Your task to perform on an android device: Open calendar and show me the third week of next month Image 0: 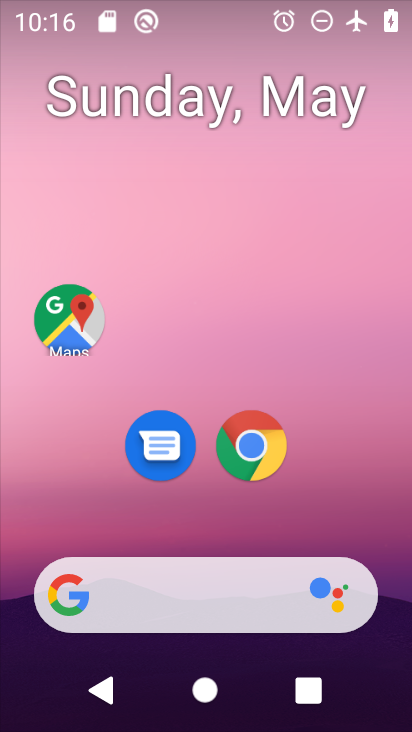
Step 0: drag from (190, 618) to (193, 232)
Your task to perform on an android device: Open calendar and show me the third week of next month Image 1: 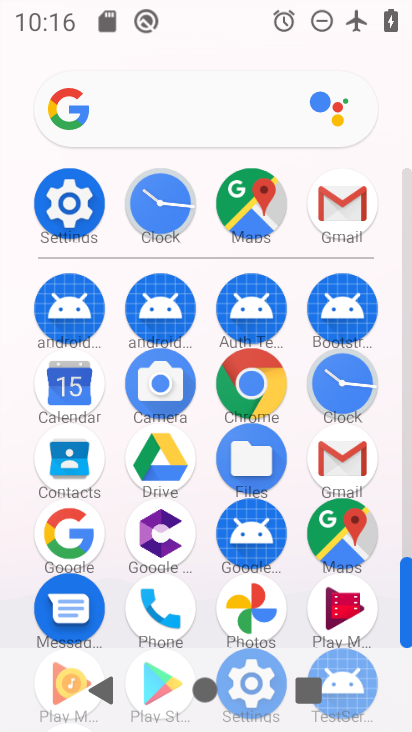
Step 1: click (73, 407)
Your task to perform on an android device: Open calendar and show me the third week of next month Image 2: 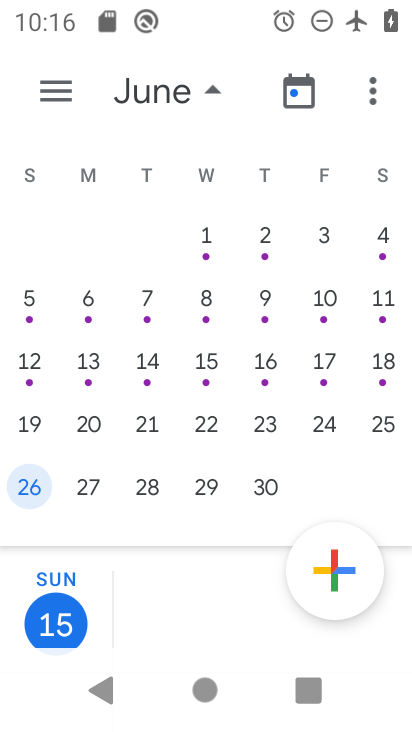
Step 2: click (35, 421)
Your task to perform on an android device: Open calendar and show me the third week of next month Image 3: 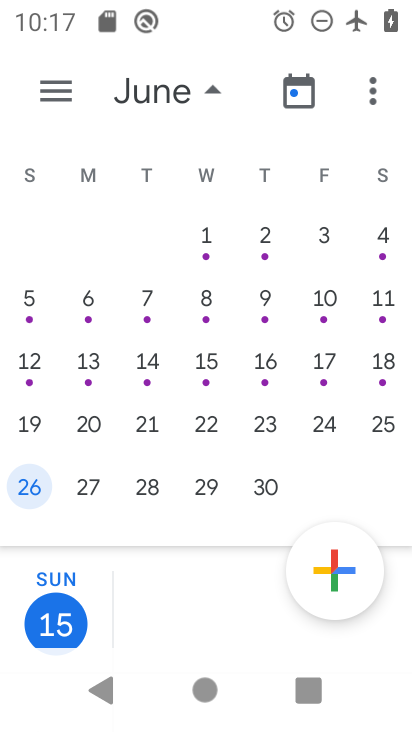
Step 3: click (35, 425)
Your task to perform on an android device: Open calendar and show me the third week of next month Image 4: 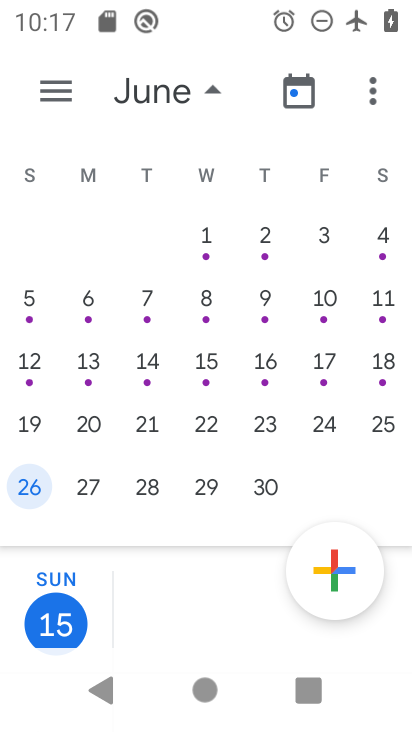
Step 4: click (36, 433)
Your task to perform on an android device: Open calendar and show me the third week of next month Image 5: 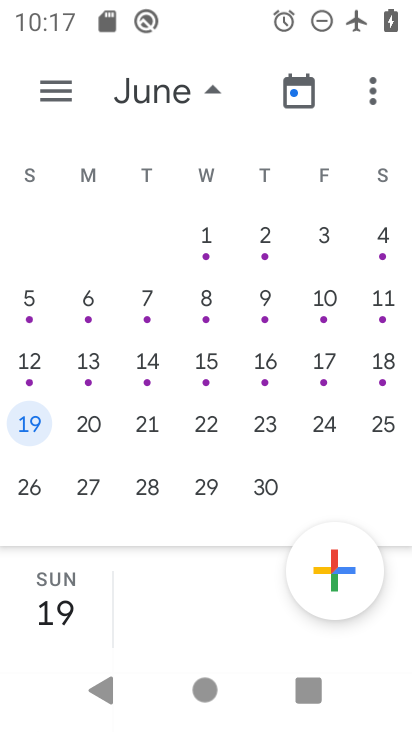
Step 5: task complete